Your task to perform on an android device: change the clock style Image 0: 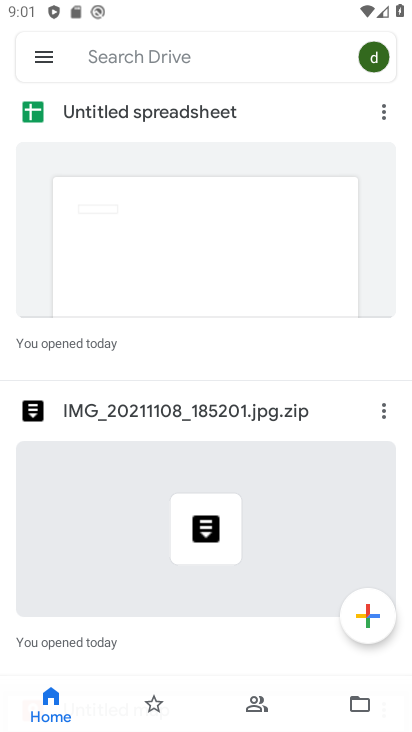
Step 0: press home button
Your task to perform on an android device: change the clock style Image 1: 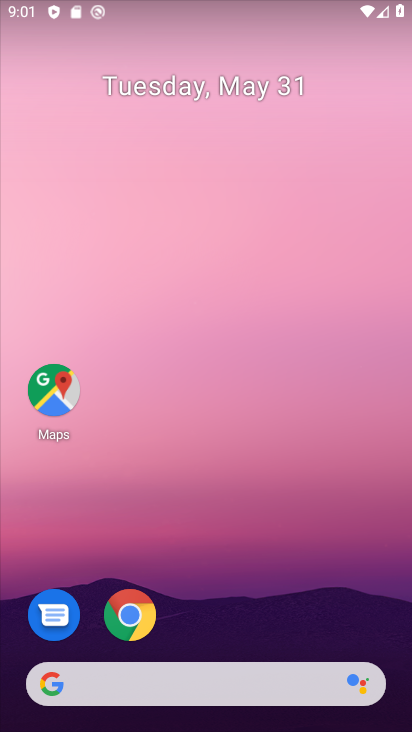
Step 1: drag from (326, 600) to (321, 124)
Your task to perform on an android device: change the clock style Image 2: 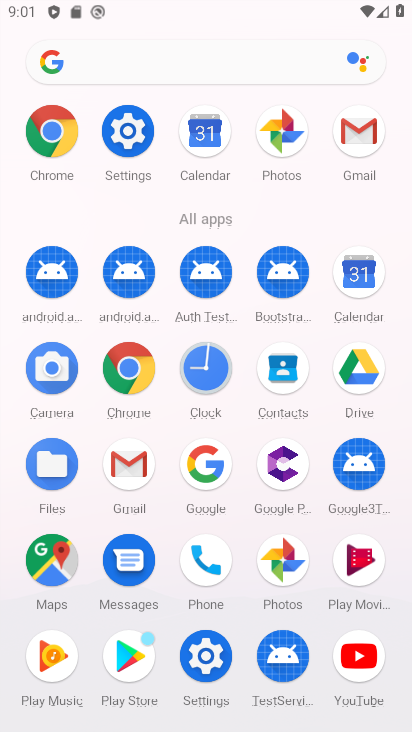
Step 2: click (196, 366)
Your task to perform on an android device: change the clock style Image 3: 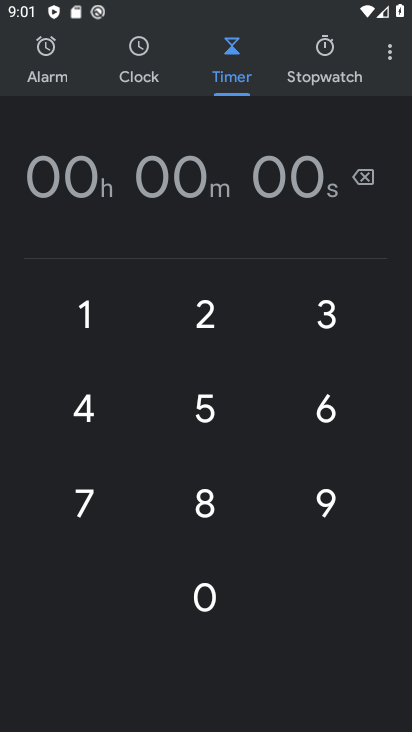
Step 3: click (385, 49)
Your task to perform on an android device: change the clock style Image 4: 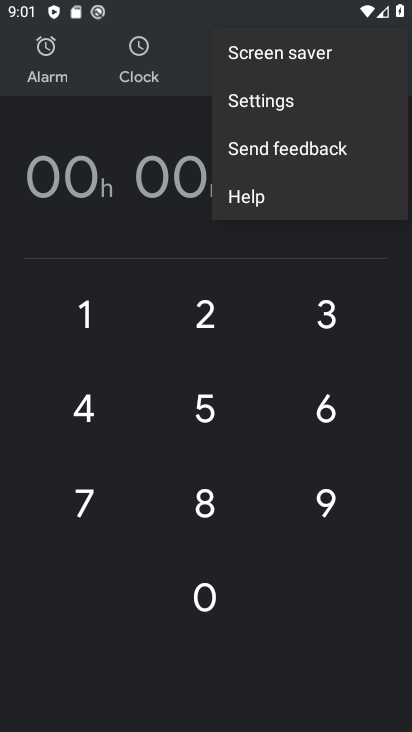
Step 4: click (256, 108)
Your task to perform on an android device: change the clock style Image 5: 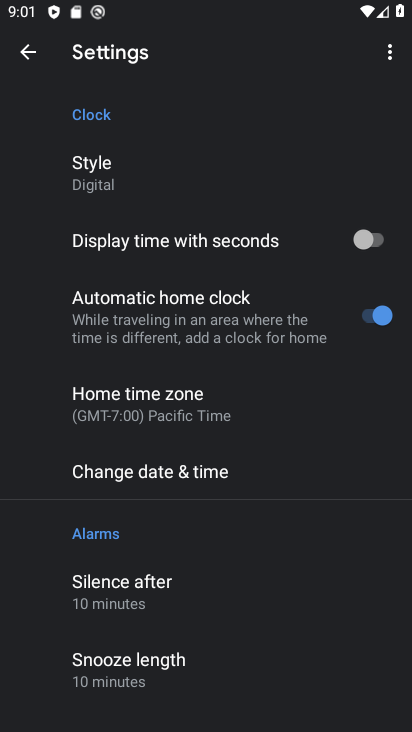
Step 5: click (153, 169)
Your task to perform on an android device: change the clock style Image 6: 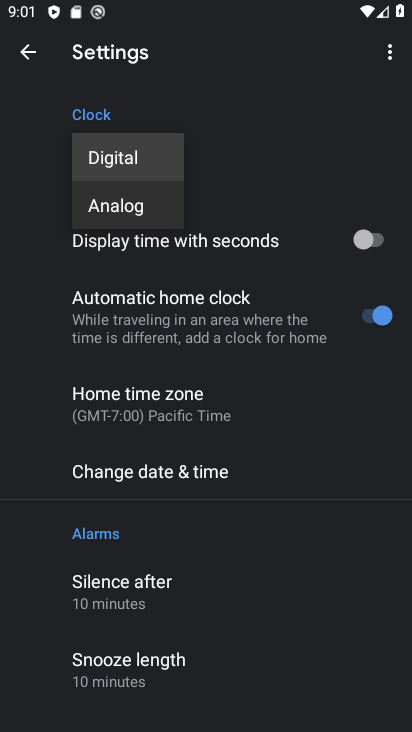
Step 6: click (149, 204)
Your task to perform on an android device: change the clock style Image 7: 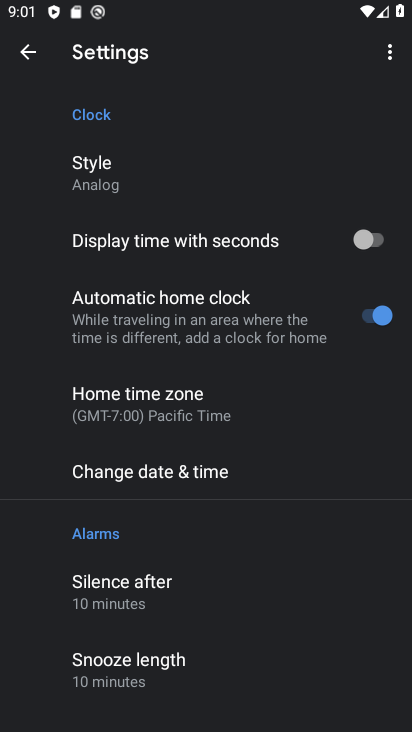
Step 7: task complete